Your task to perform on an android device: turn off translation in the chrome app Image 0: 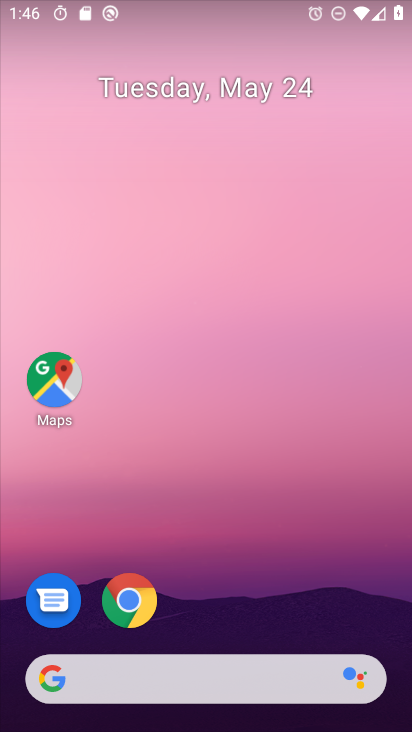
Step 0: drag from (239, 604) to (194, 128)
Your task to perform on an android device: turn off translation in the chrome app Image 1: 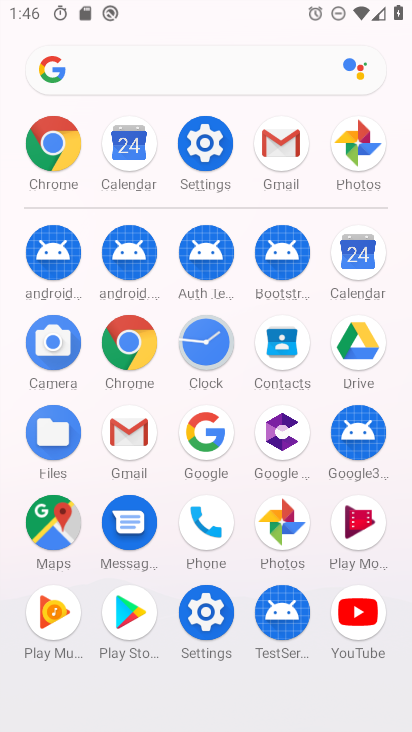
Step 1: click (124, 348)
Your task to perform on an android device: turn off translation in the chrome app Image 2: 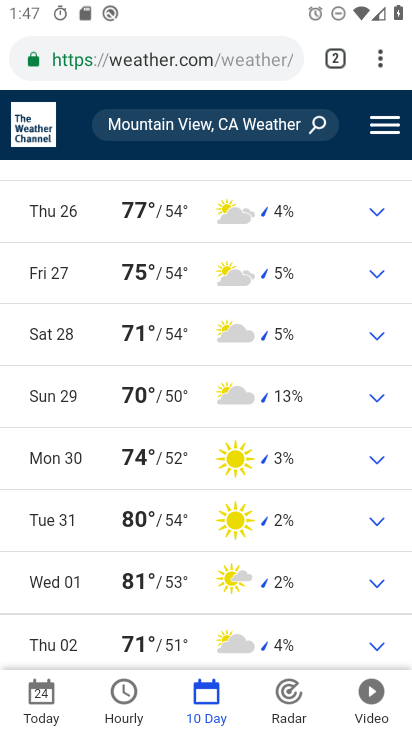
Step 2: click (385, 50)
Your task to perform on an android device: turn off translation in the chrome app Image 3: 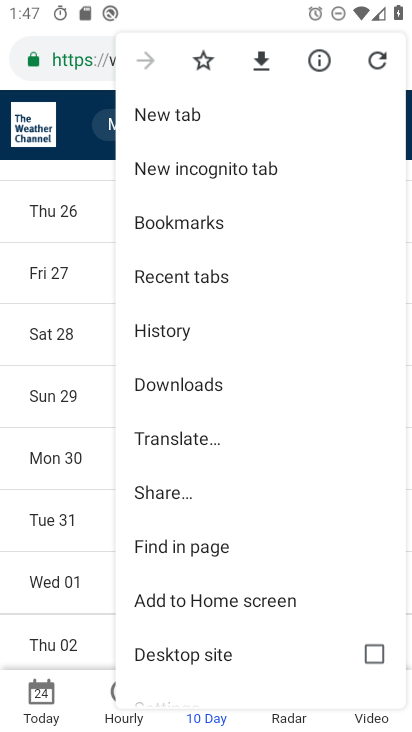
Step 3: drag from (254, 527) to (281, 121)
Your task to perform on an android device: turn off translation in the chrome app Image 4: 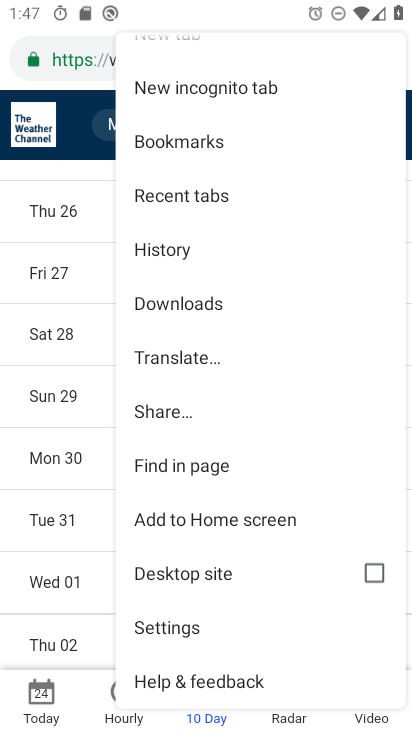
Step 4: click (181, 632)
Your task to perform on an android device: turn off translation in the chrome app Image 5: 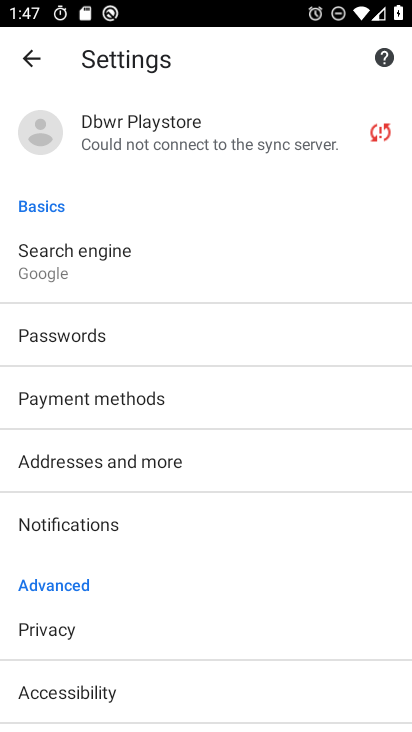
Step 5: drag from (219, 574) to (265, 187)
Your task to perform on an android device: turn off translation in the chrome app Image 6: 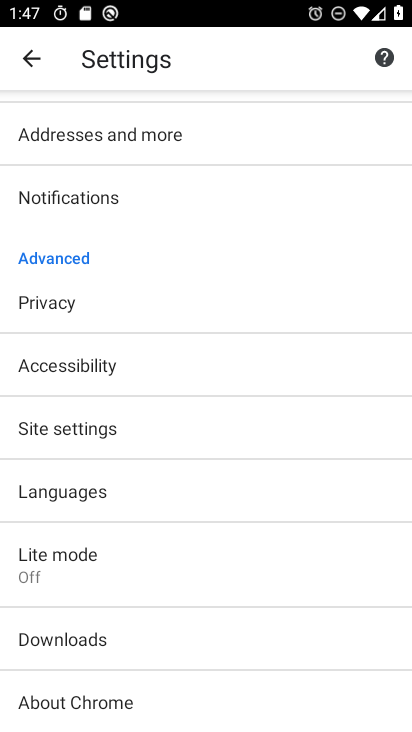
Step 6: drag from (150, 635) to (234, 395)
Your task to perform on an android device: turn off translation in the chrome app Image 7: 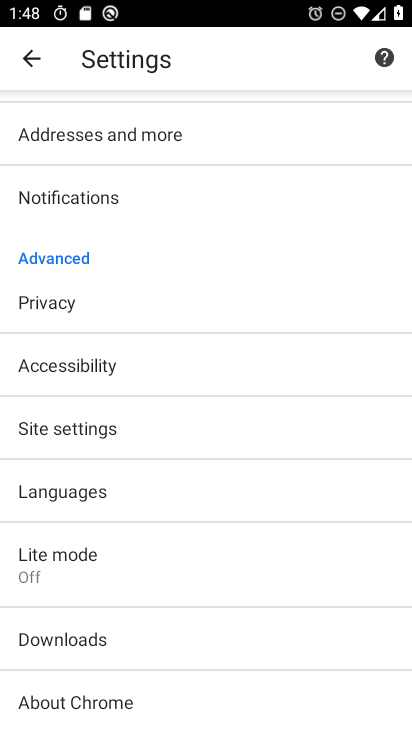
Step 7: click (68, 560)
Your task to perform on an android device: turn off translation in the chrome app Image 8: 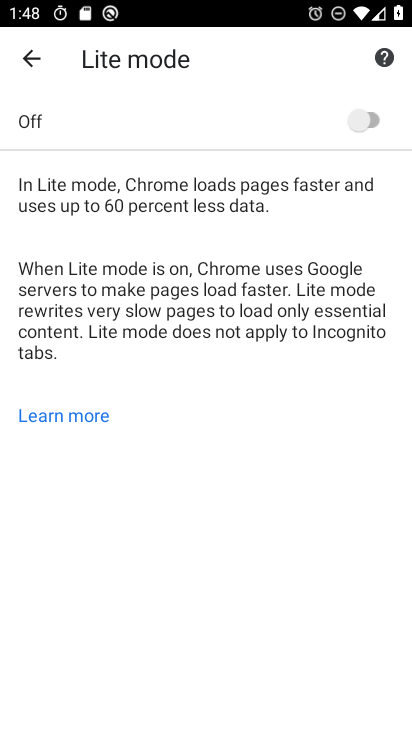
Step 8: click (28, 104)
Your task to perform on an android device: turn off translation in the chrome app Image 9: 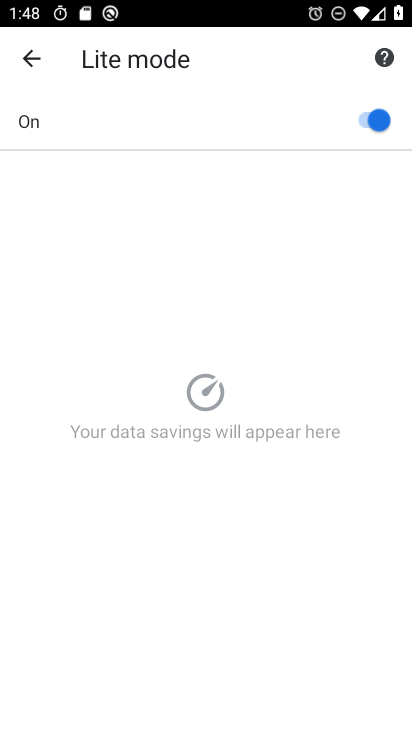
Step 9: click (365, 127)
Your task to perform on an android device: turn off translation in the chrome app Image 10: 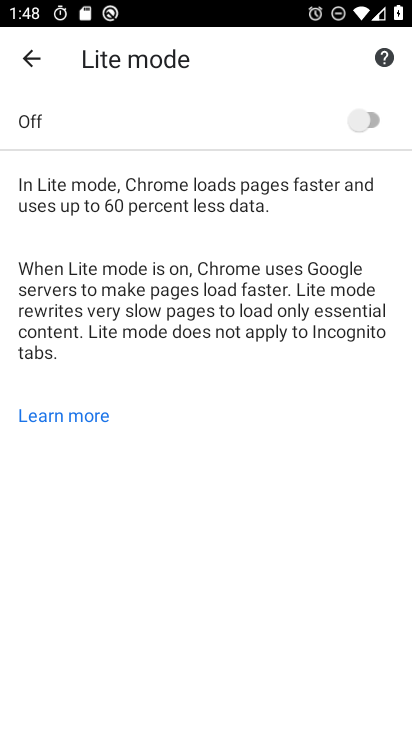
Step 10: click (29, 56)
Your task to perform on an android device: turn off translation in the chrome app Image 11: 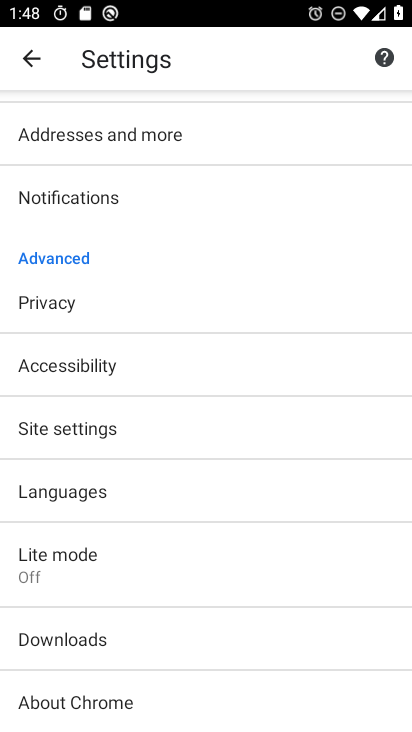
Step 11: click (82, 499)
Your task to perform on an android device: turn off translation in the chrome app Image 12: 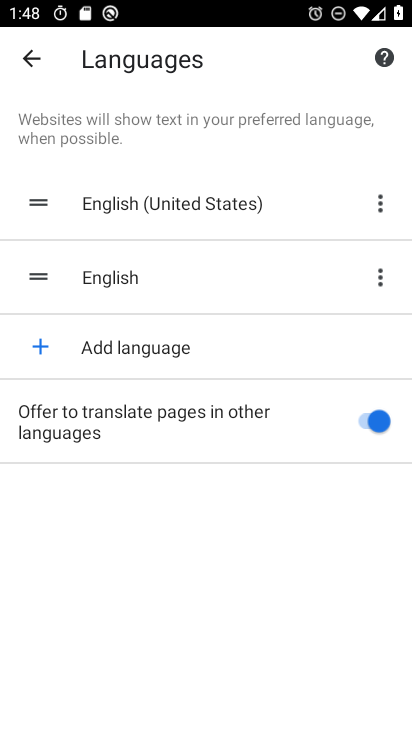
Step 12: click (355, 420)
Your task to perform on an android device: turn off translation in the chrome app Image 13: 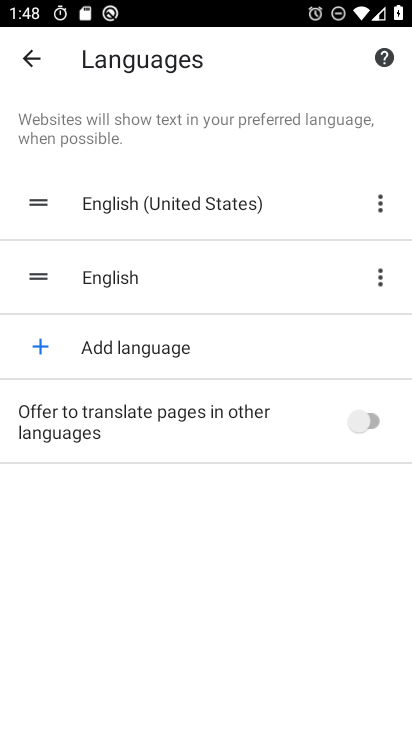
Step 13: task complete